Your task to perform on an android device: Open settings Image 0: 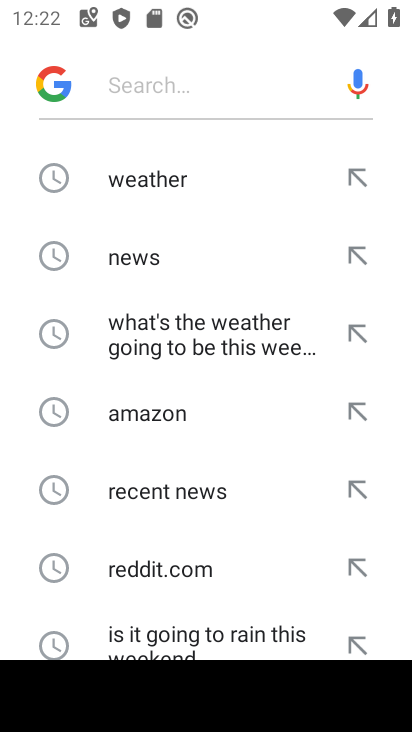
Step 0: press home button
Your task to perform on an android device: Open settings Image 1: 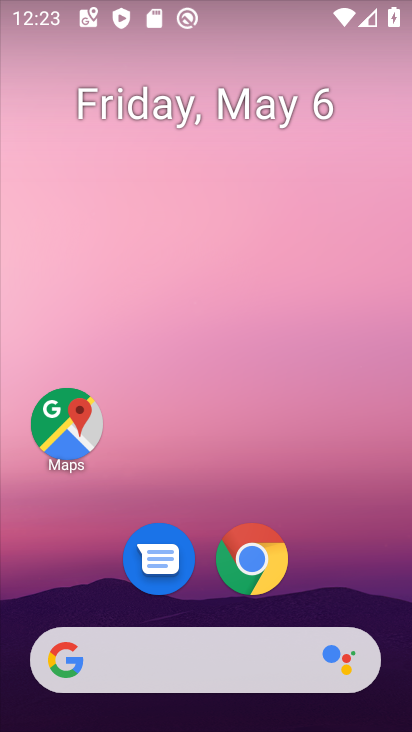
Step 1: drag from (323, 603) to (305, 108)
Your task to perform on an android device: Open settings Image 2: 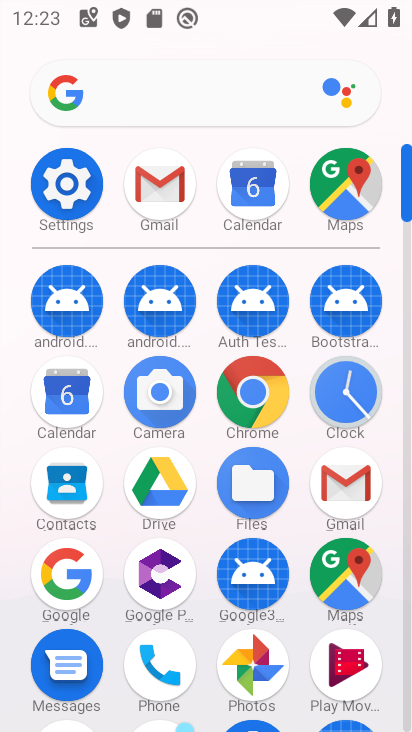
Step 2: click (60, 195)
Your task to perform on an android device: Open settings Image 3: 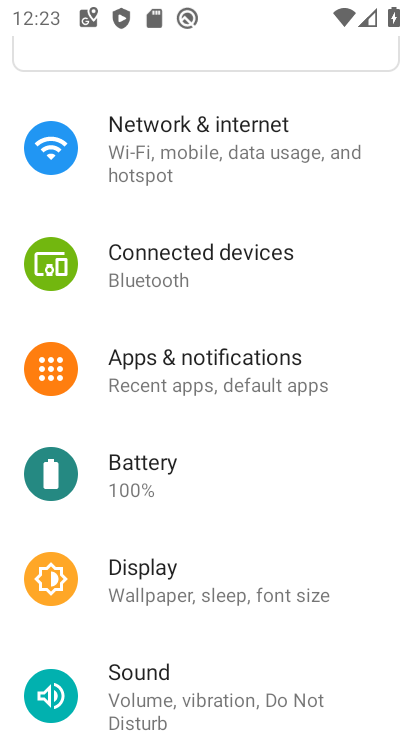
Step 3: task complete